Your task to perform on an android device: Clear all items from cart on newegg. Image 0: 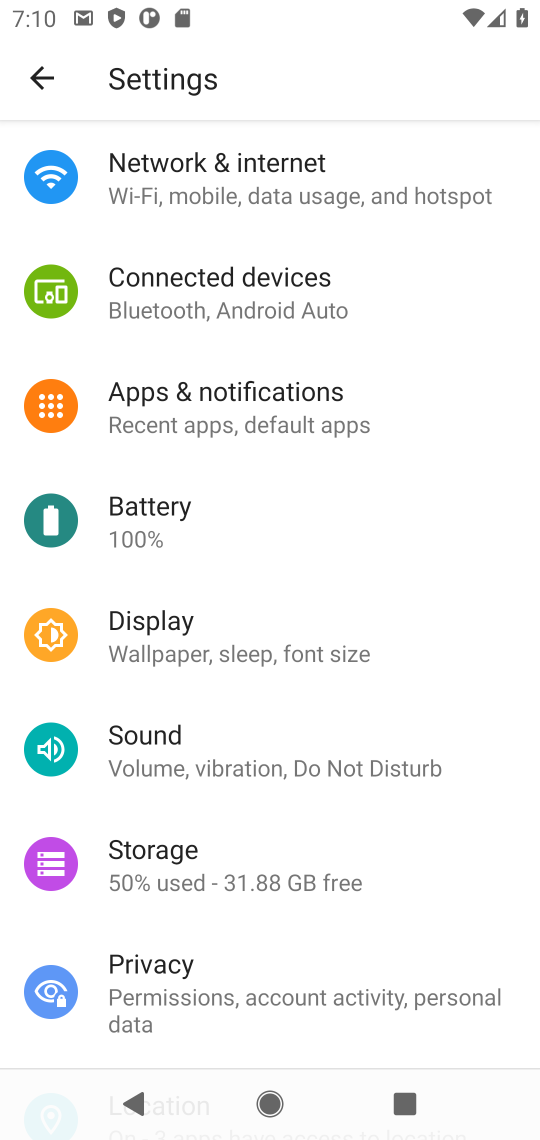
Step 0: press home button
Your task to perform on an android device: Clear all items from cart on newegg. Image 1: 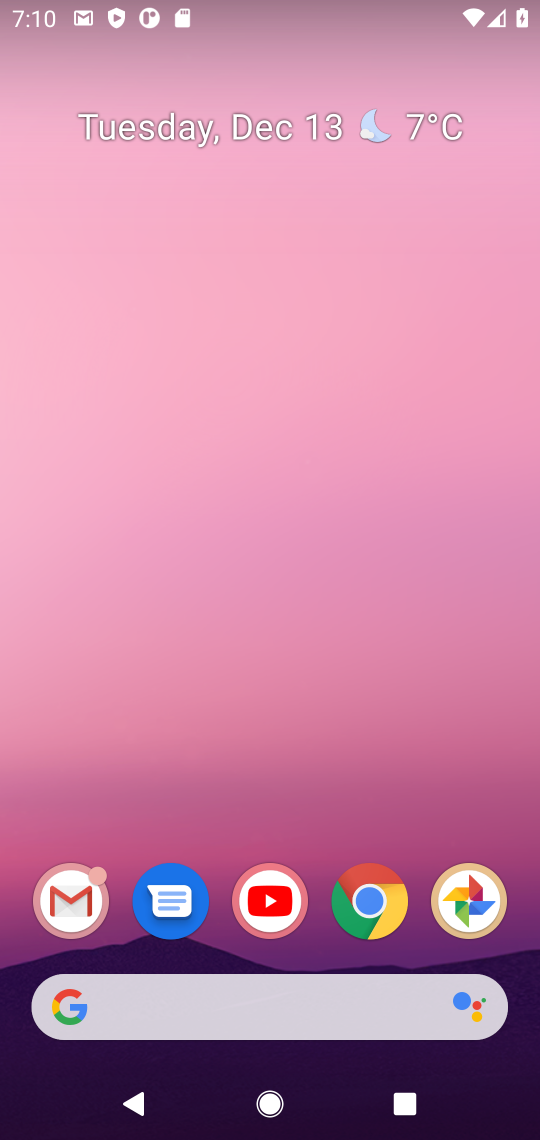
Step 1: click (367, 891)
Your task to perform on an android device: Clear all items from cart on newegg. Image 2: 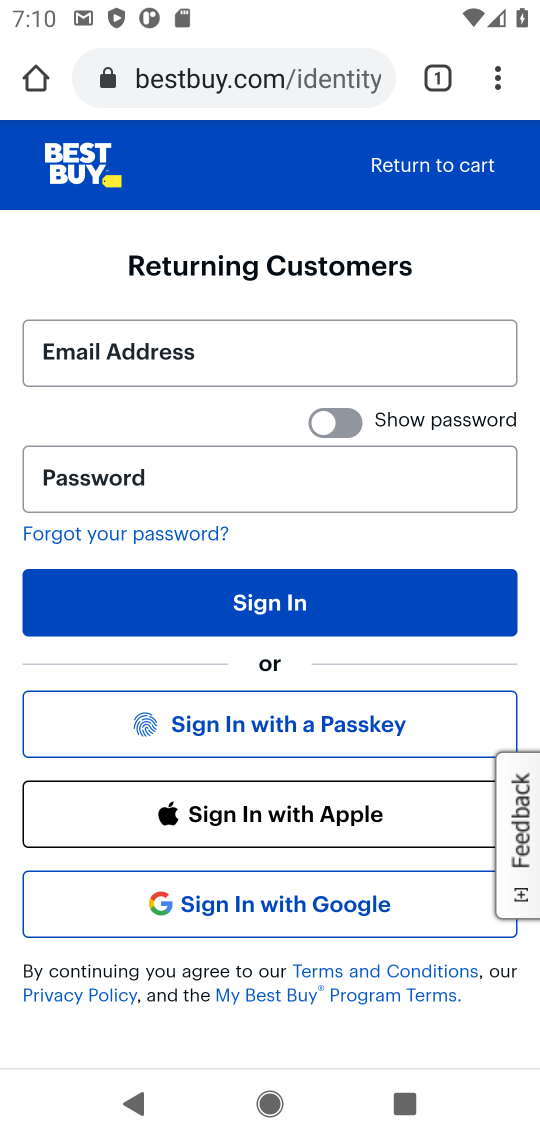
Step 2: click (435, 65)
Your task to perform on an android device: Clear all items from cart on newegg. Image 3: 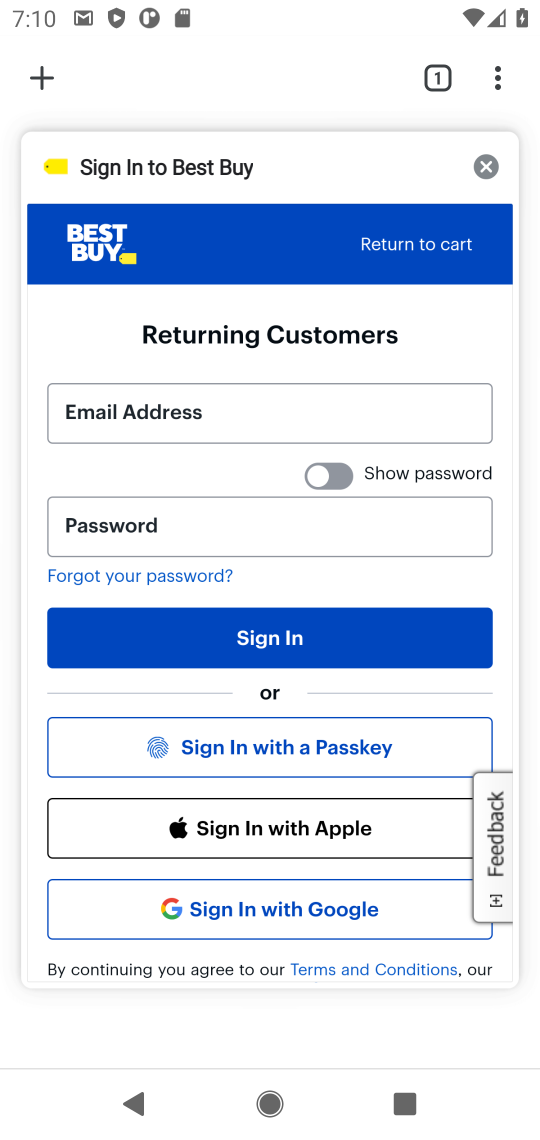
Step 3: click (35, 84)
Your task to perform on an android device: Clear all items from cart on newegg. Image 4: 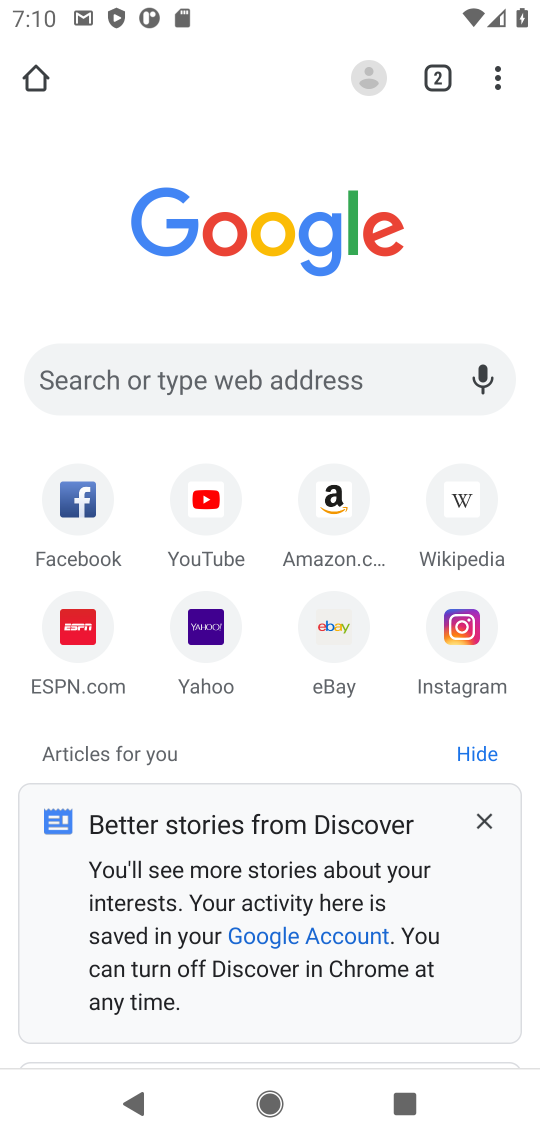
Step 4: click (295, 379)
Your task to perform on an android device: Clear all items from cart on newegg. Image 5: 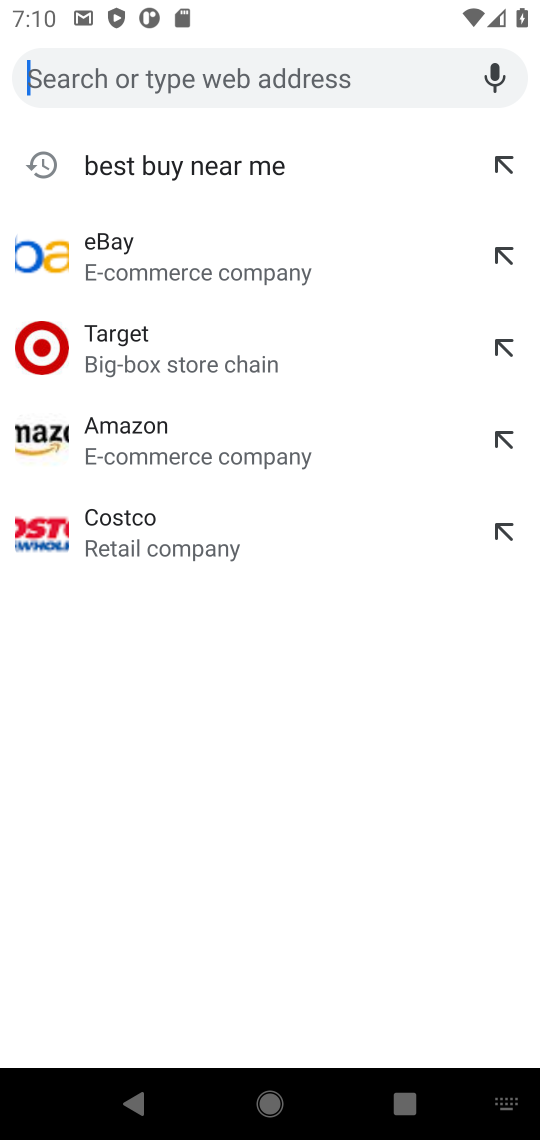
Step 5: type "newegg"
Your task to perform on an android device: Clear all items from cart on newegg. Image 6: 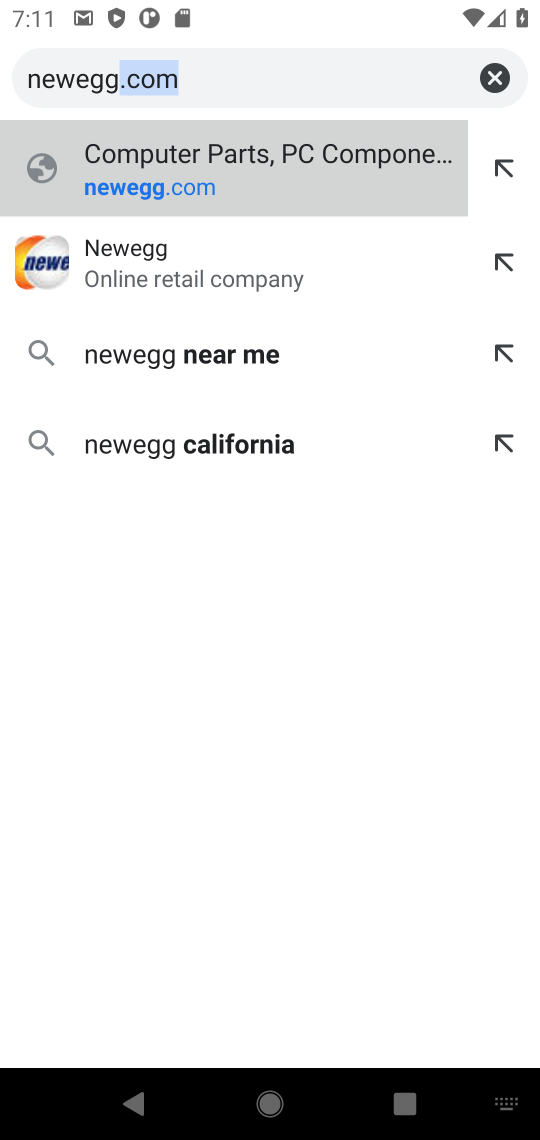
Step 6: click (169, 258)
Your task to perform on an android device: Clear all items from cart on newegg. Image 7: 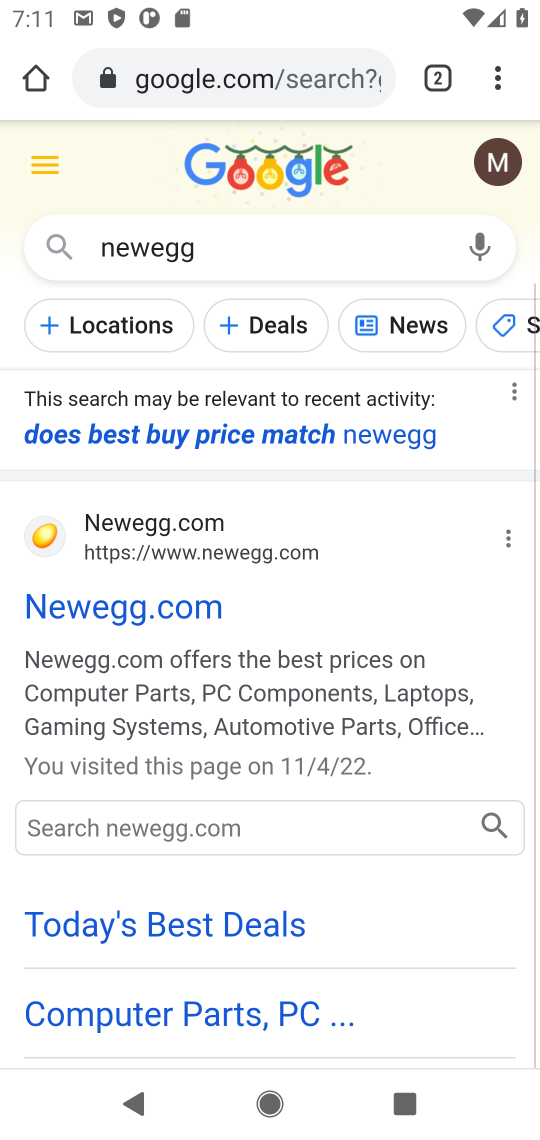
Step 7: click (168, 599)
Your task to perform on an android device: Clear all items from cart on newegg. Image 8: 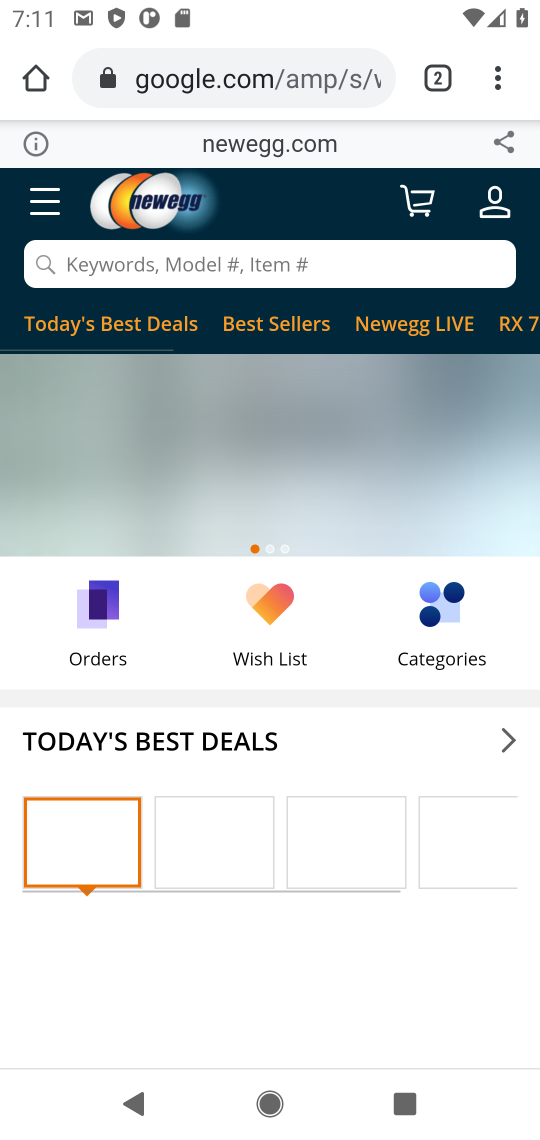
Step 8: click (422, 211)
Your task to perform on an android device: Clear all items from cart on newegg. Image 9: 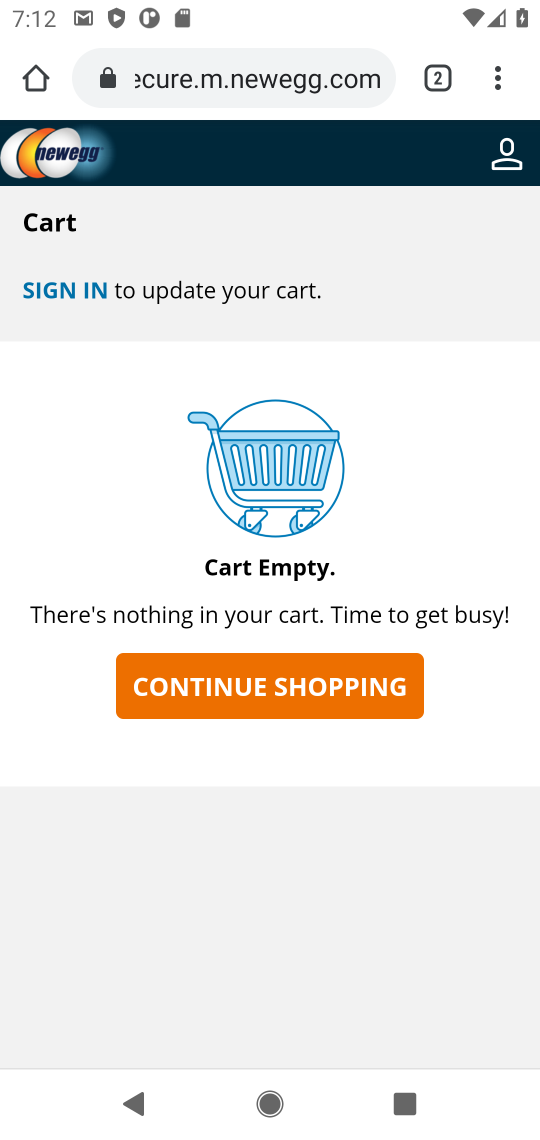
Step 9: task complete